Your task to perform on an android device: turn off notifications settings in the gmail app Image 0: 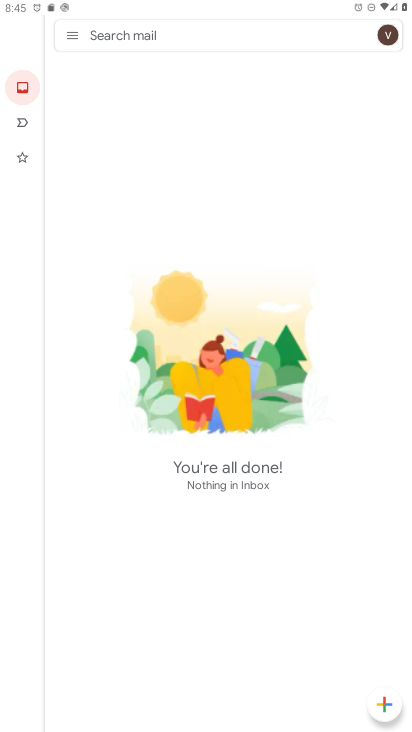
Step 0: press home button
Your task to perform on an android device: turn off notifications settings in the gmail app Image 1: 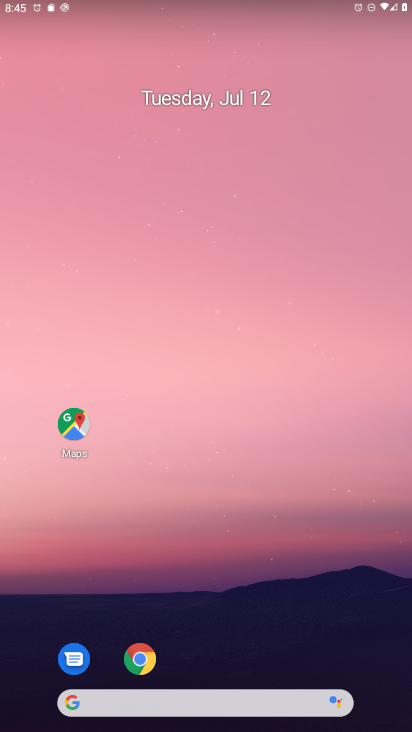
Step 1: drag from (162, 701) to (193, 95)
Your task to perform on an android device: turn off notifications settings in the gmail app Image 2: 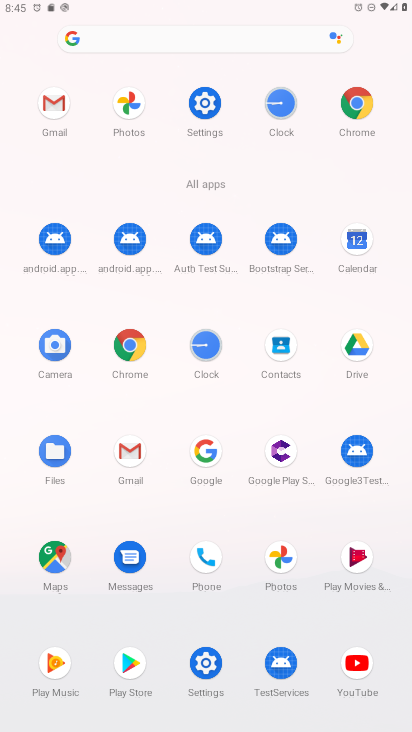
Step 2: click (51, 102)
Your task to perform on an android device: turn off notifications settings in the gmail app Image 3: 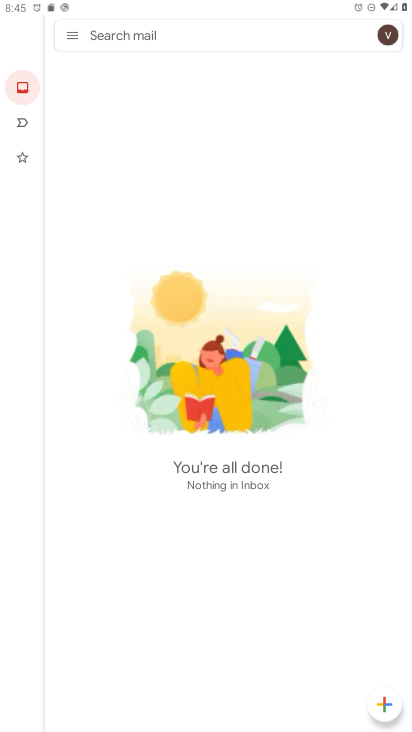
Step 3: click (73, 40)
Your task to perform on an android device: turn off notifications settings in the gmail app Image 4: 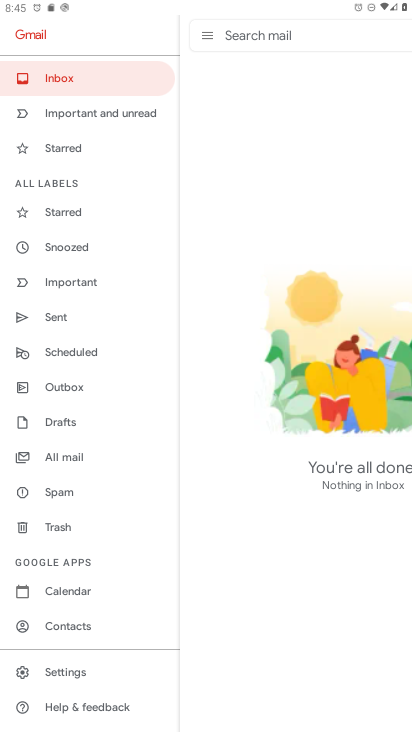
Step 4: click (69, 673)
Your task to perform on an android device: turn off notifications settings in the gmail app Image 5: 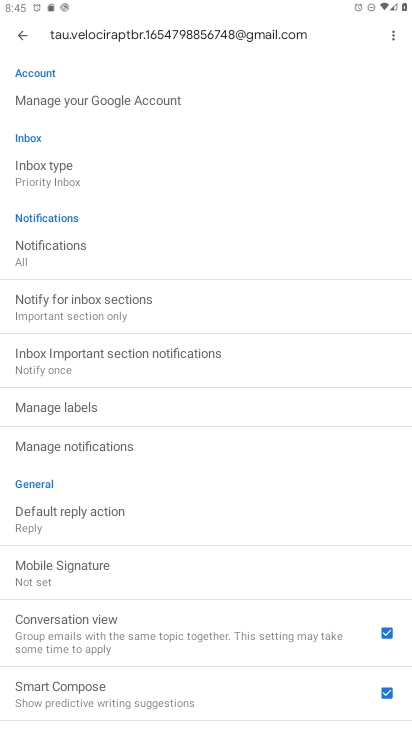
Step 5: click (93, 445)
Your task to perform on an android device: turn off notifications settings in the gmail app Image 6: 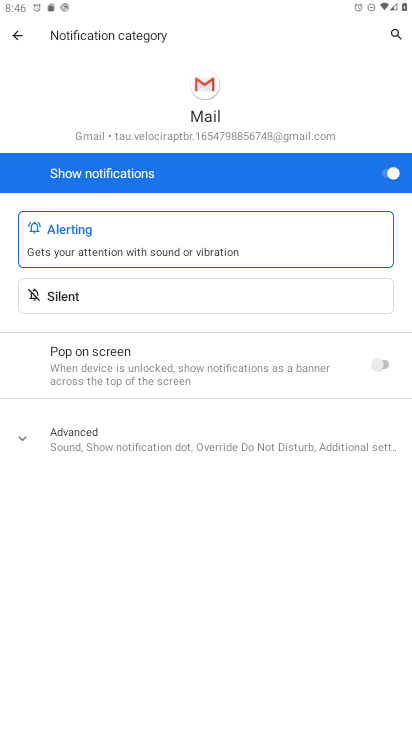
Step 6: click (388, 174)
Your task to perform on an android device: turn off notifications settings in the gmail app Image 7: 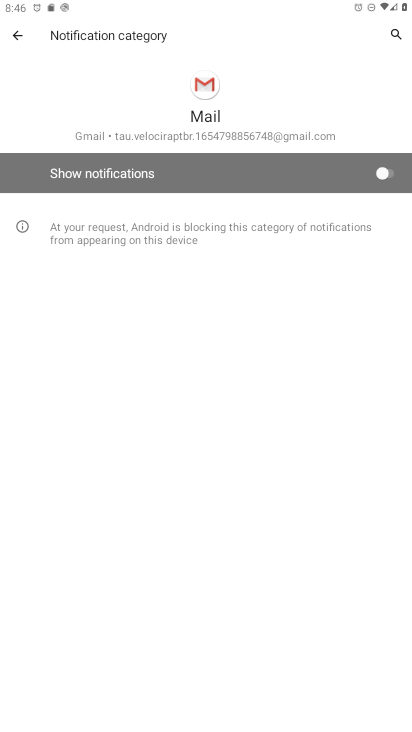
Step 7: task complete